Your task to perform on an android device: change text size in settings app Image 0: 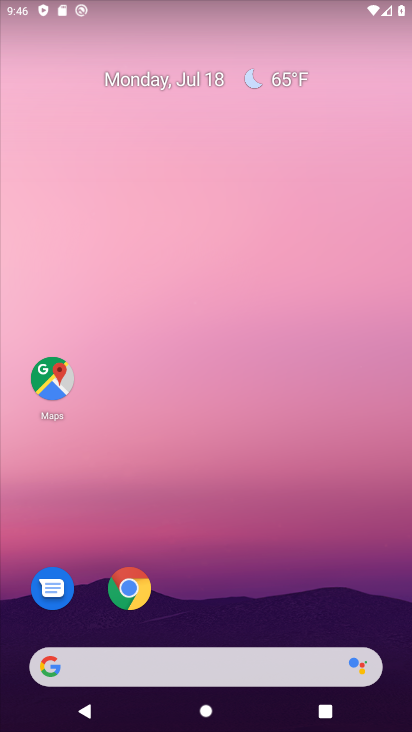
Step 0: press home button
Your task to perform on an android device: change text size in settings app Image 1: 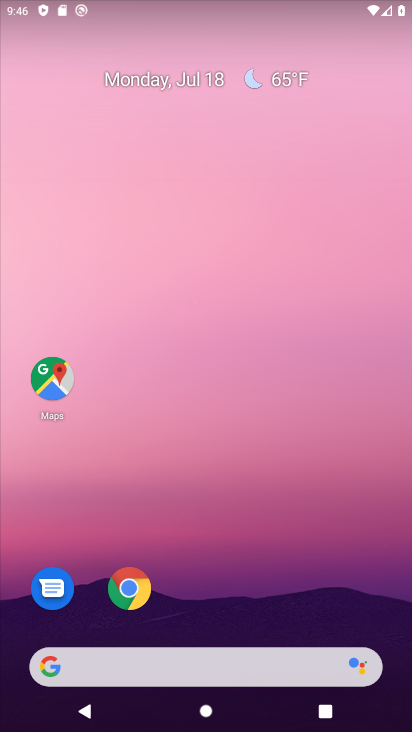
Step 1: drag from (258, 629) to (326, 66)
Your task to perform on an android device: change text size in settings app Image 2: 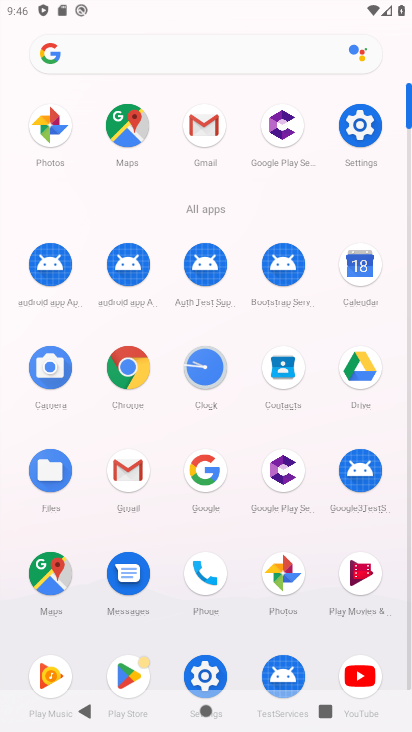
Step 2: click (359, 132)
Your task to perform on an android device: change text size in settings app Image 3: 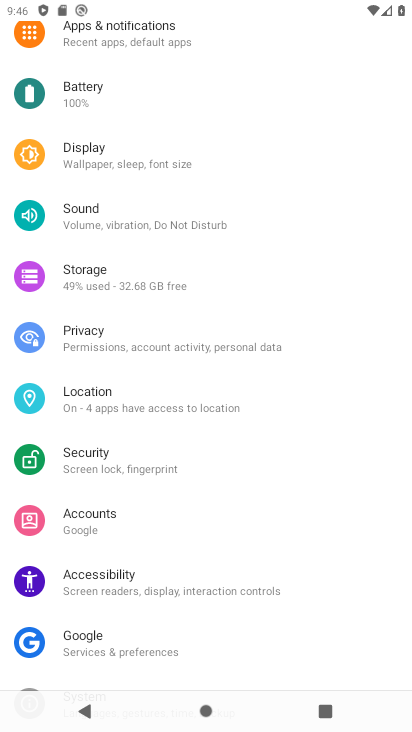
Step 3: drag from (306, 607) to (337, 52)
Your task to perform on an android device: change text size in settings app Image 4: 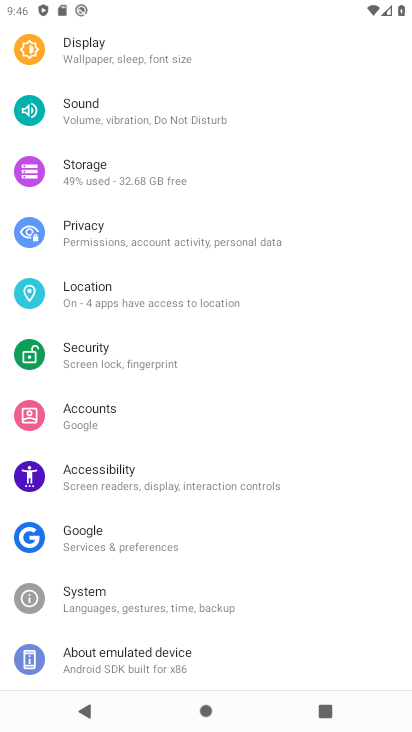
Step 4: click (127, 60)
Your task to perform on an android device: change text size in settings app Image 5: 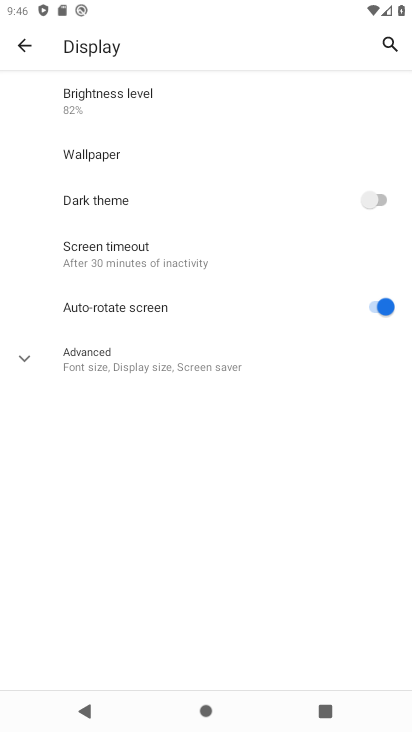
Step 5: click (75, 359)
Your task to perform on an android device: change text size in settings app Image 6: 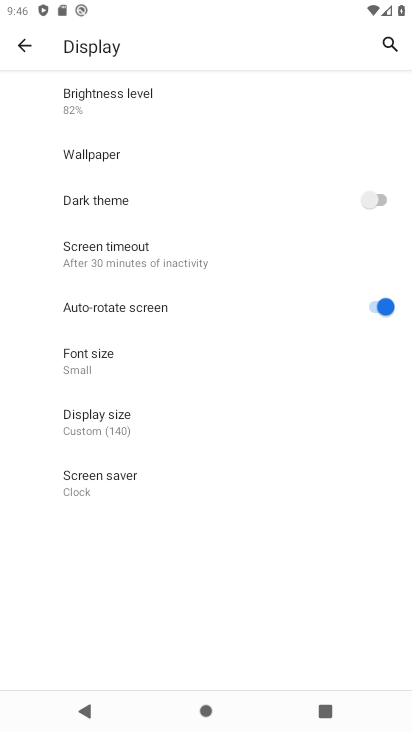
Step 6: click (82, 361)
Your task to perform on an android device: change text size in settings app Image 7: 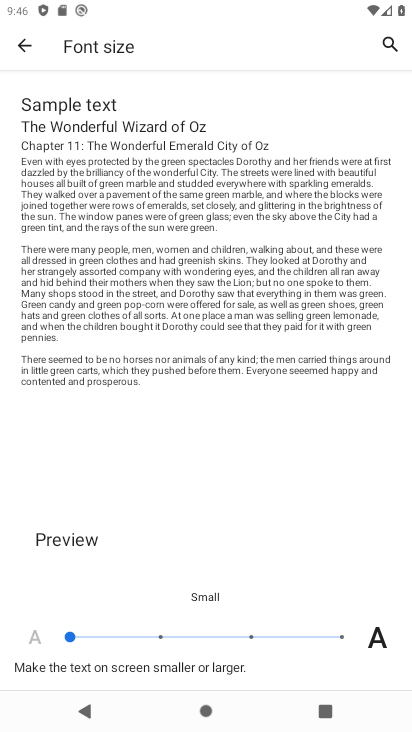
Step 7: click (161, 638)
Your task to perform on an android device: change text size in settings app Image 8: 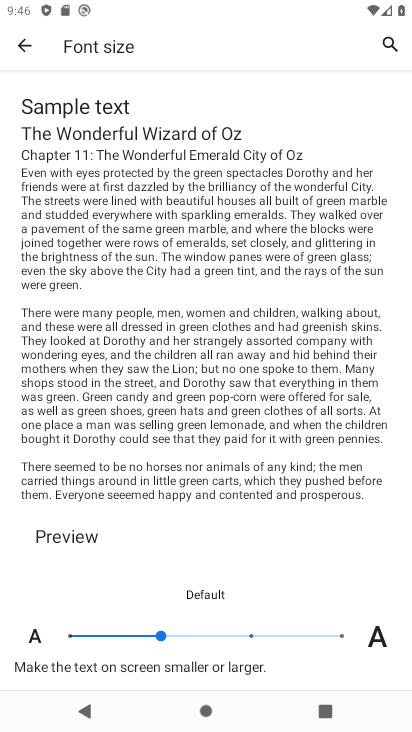
Step 8: click (255, 639)
Your task to perform on an android device: change text size in settings app Image 9: 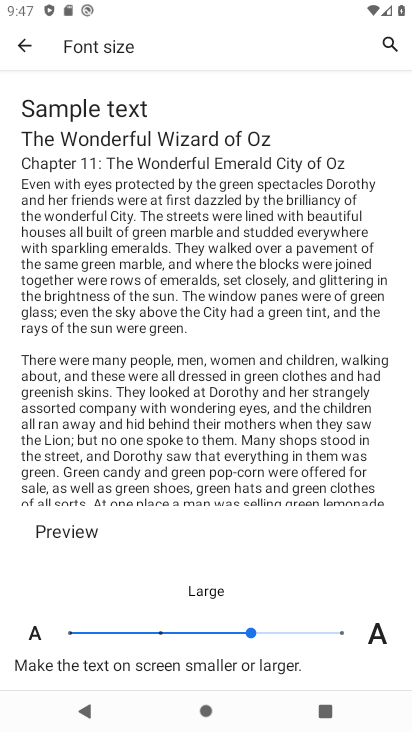
Step 9: click (346, 639)
Your task to perform on an android device: change text size in settings app Image 10: 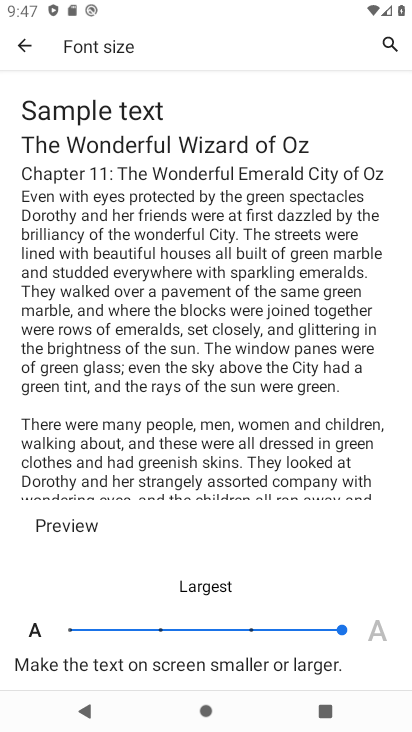
Step 10: click (257, 627)
Your task to perform on an android device: change text size in settings app Image 11: 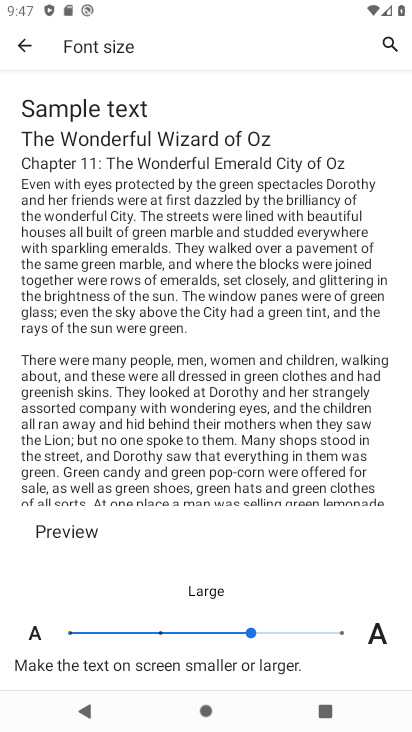
Step 11: click (331, 634)
Your task to perform on an android device: change text size in settings app Image 12: 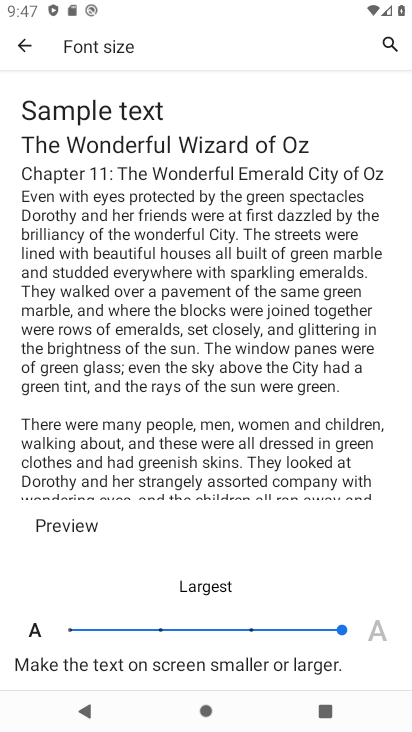
Step 12: task complete